Your task to perform on an android device: Open settings Image 0: 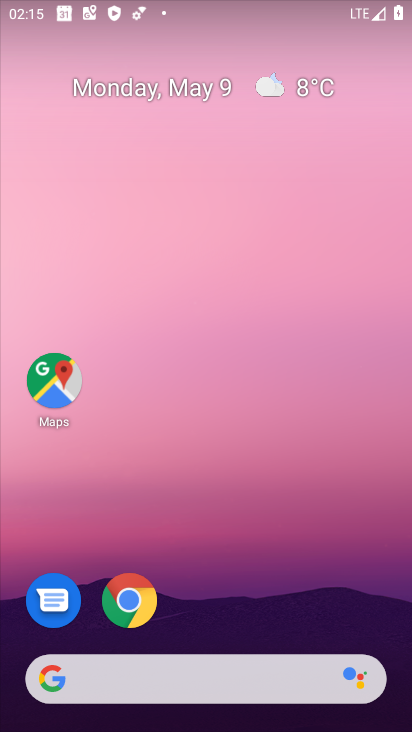
Step 0: drag from (220, 625) to (213, 66)
Your task to perform on an android device: Open settings Image 1: 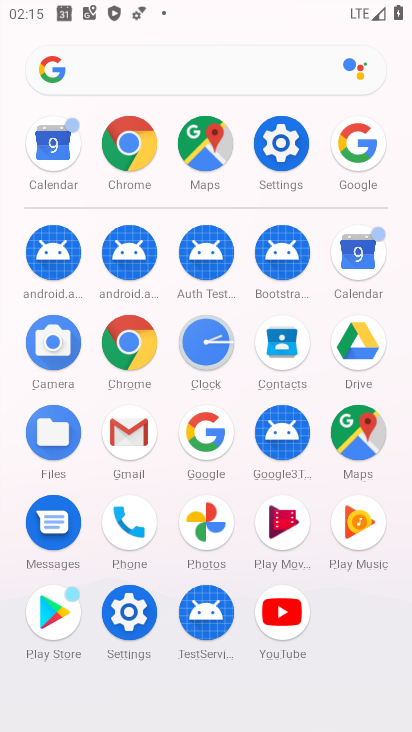
Step 1: click (274, 138)
Your task to perform on an android device: Open settings Image 2: 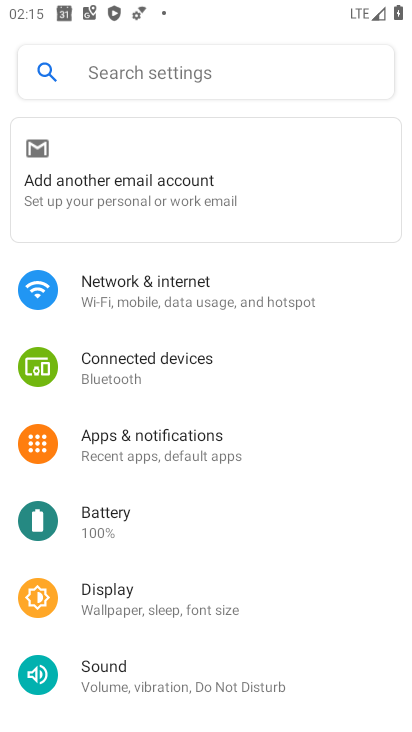
Step 2: task complete